Your task to perform on an android device: toggle sleep mode Image 0: 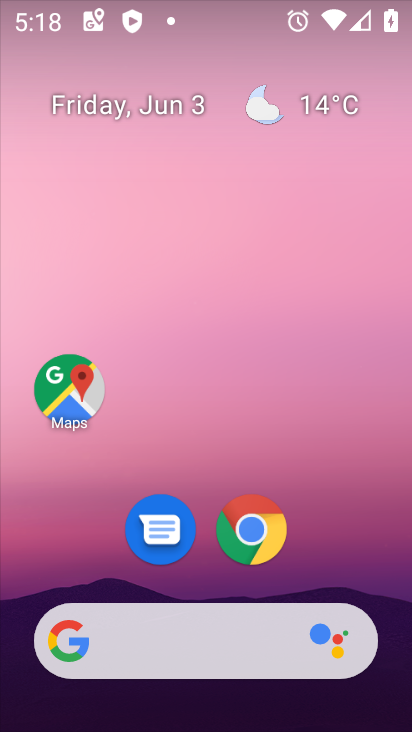
Step 0: press home button
Your task to perform on an android device: toggle sleep mode Image 1: 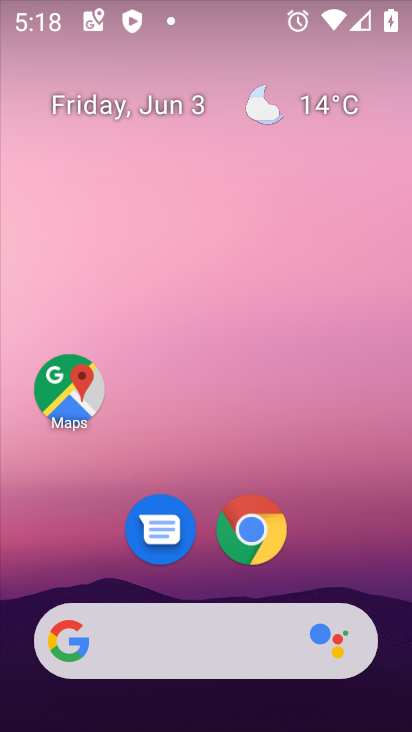
Step 1: drag from (206, 576) to (267, 10)
Your task to perform on an android device: toggle sleep mode Image 2: 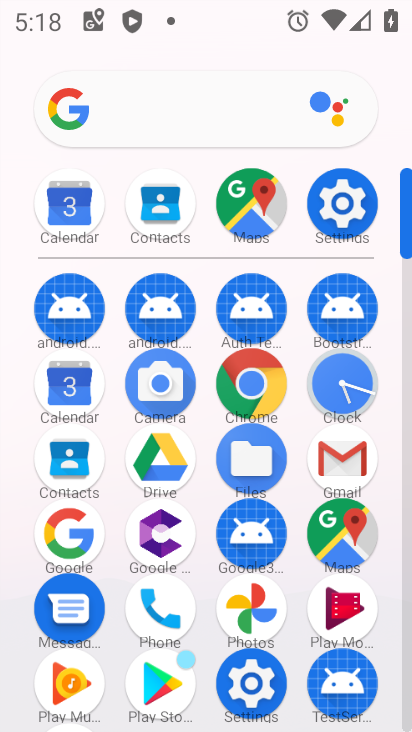
Step 2: click (254, 676)
Your task to perform on an android device: toggle sleep mode Image 3: 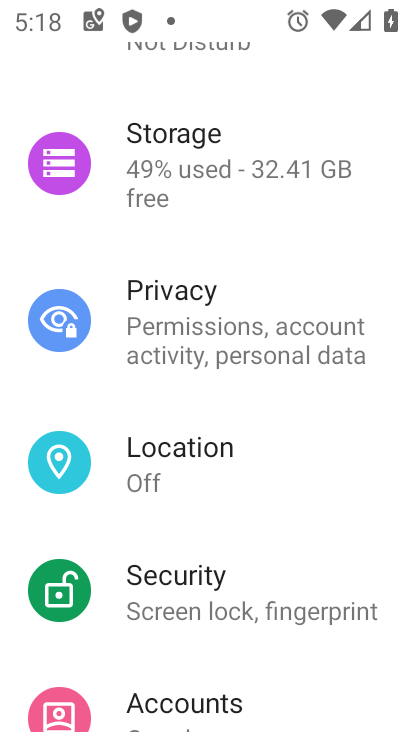
Step 3: drag from (233, 129) to (239, 584)
Your task to perform on an android device: toggle sleep mode Image 4: 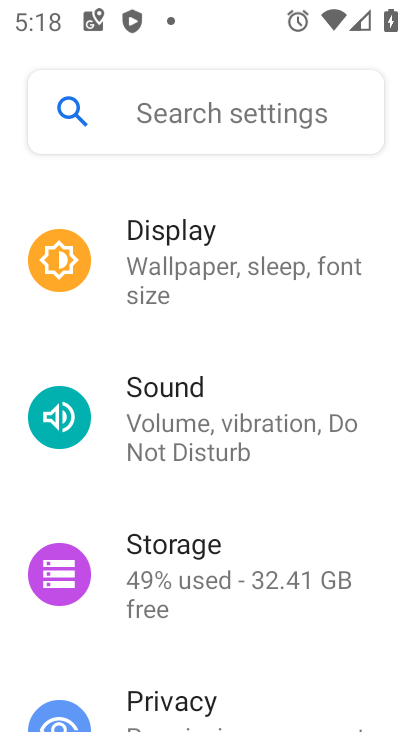
Step 4: click (192, 286)
Your task to perform on an android device: toggle sleep mode Image 5: 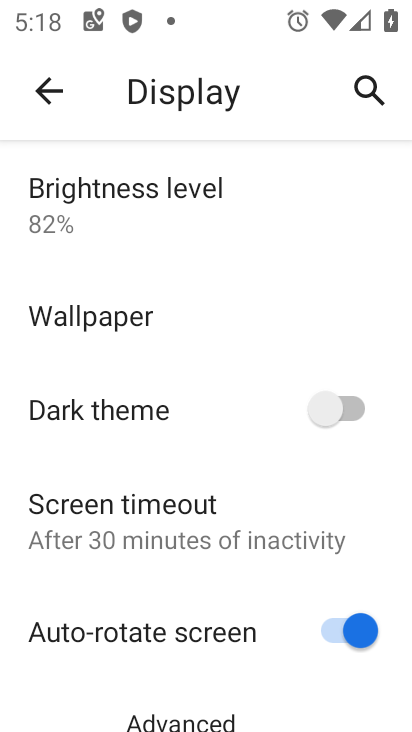
Step 5: drag from (210, 597) to (238, 121)
Your task to perform on an android device: toggle sleep mode Image 6: 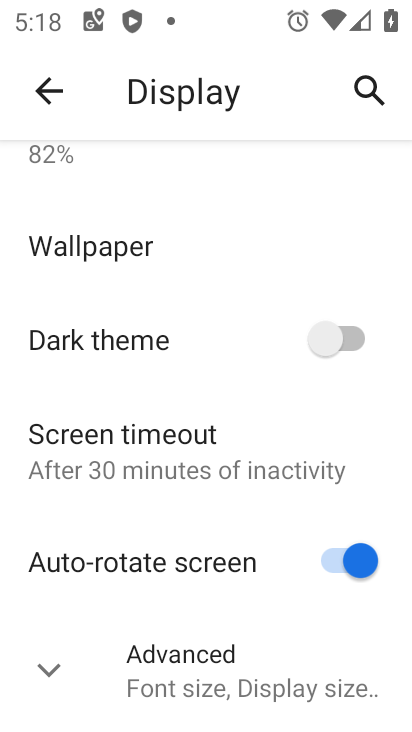
Step 6: click (44, 661)
Your task to perform on an android device: toggle sleep mode Image 7: 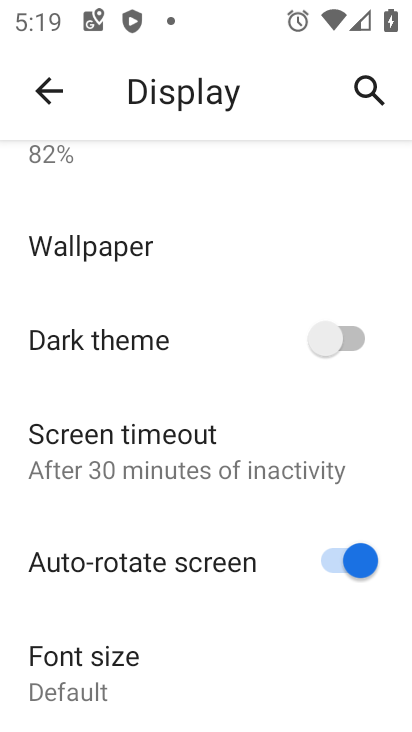
Step 7: task complete